Your task to perform on an android device: turn off picture-in-picture Image 0: 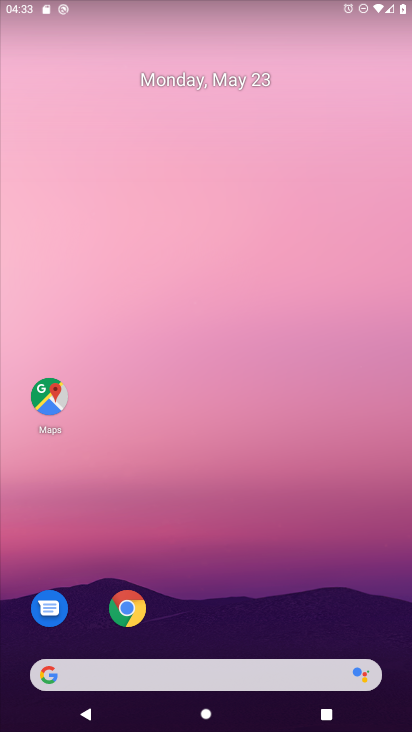
Step 0: click (127, 604)
Your task to perform on an android device: turn off picture-in-picture Image 1: 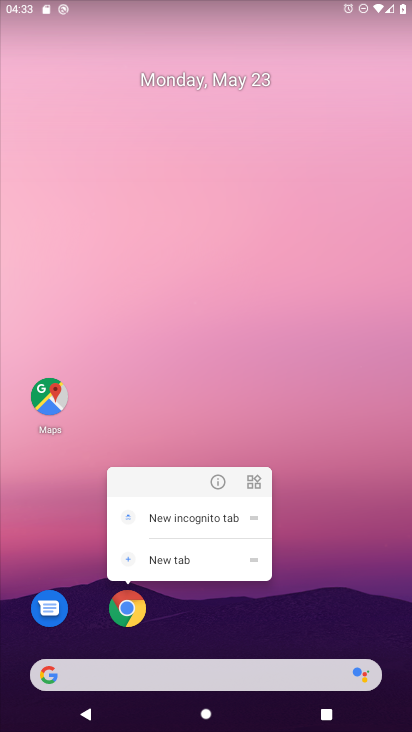
Step 1: click (217, 482)
Your task to perform on an android device: turn off picture-in-picture Image 2: 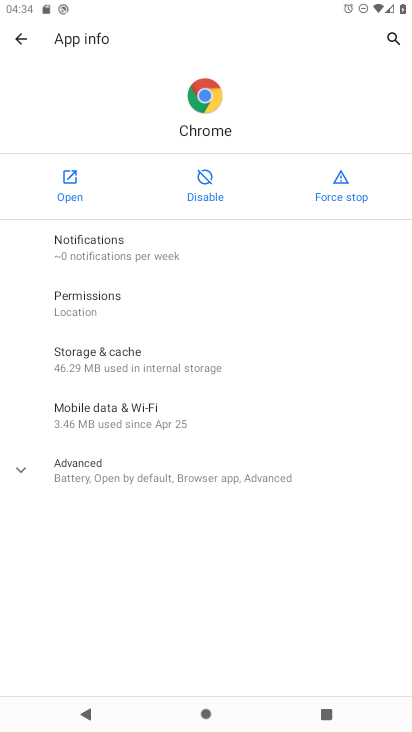
Step 2: click (96, 475)
Your task to perform on an android device: turn off picture-in-picture Image 3: 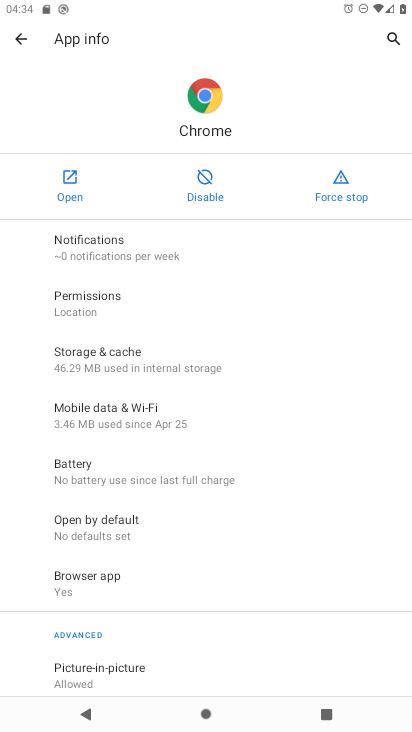
Step 3: drag from (148, 609) to (174, 536)
Your task to perform on an android device: turn off picture-in-picture Image 4: 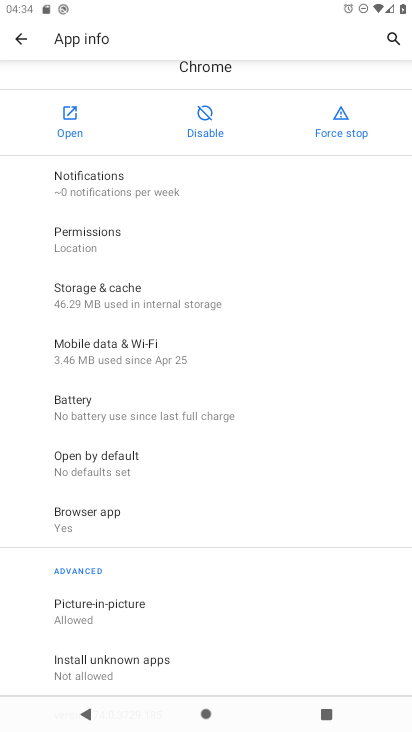
Step 4: click (115, 604)
Your task to perform on an android device: turn off picture-in-picture Image 5: 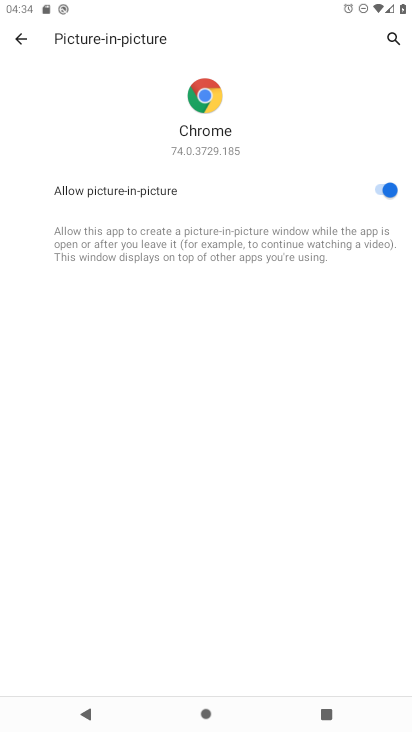
Step 5: click (384, 190)
Your task to perform on an android device: turn off picture-in-picture Image 6: 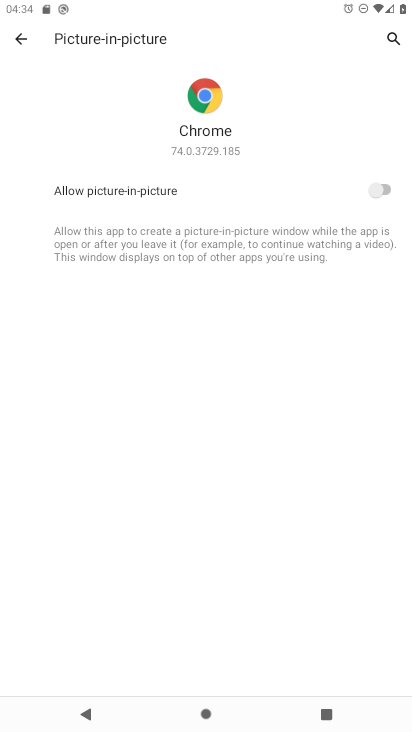
Step 6: task complete